Your task to perform on an android device: add a contact Image 0: 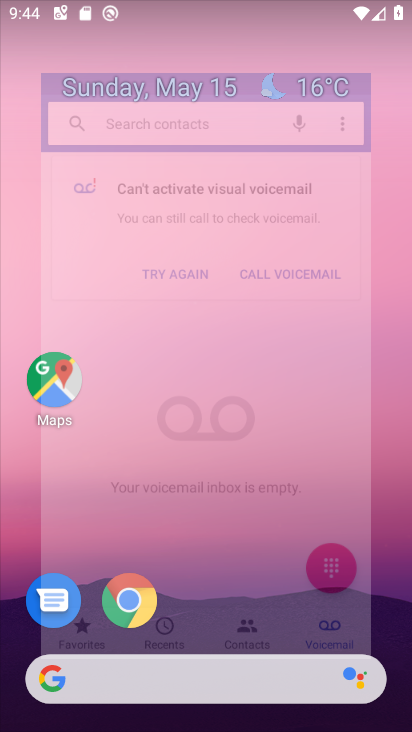
Step 0: click (138, 614)
Your task to perform on an android device: add a contact Image 1: 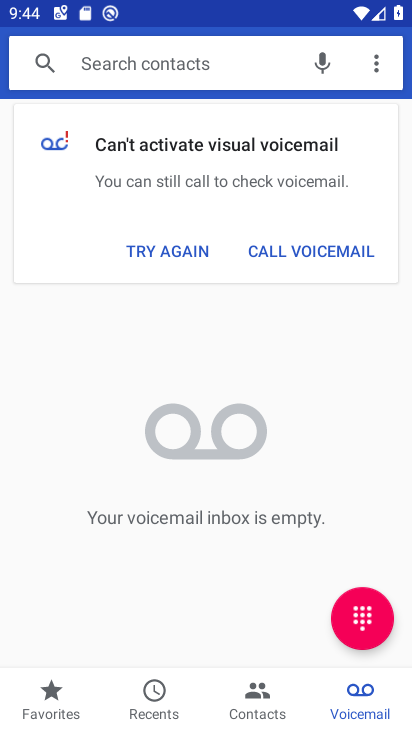
Step 1: press back button
Your task to perform on an android device: add a contact Image 2: 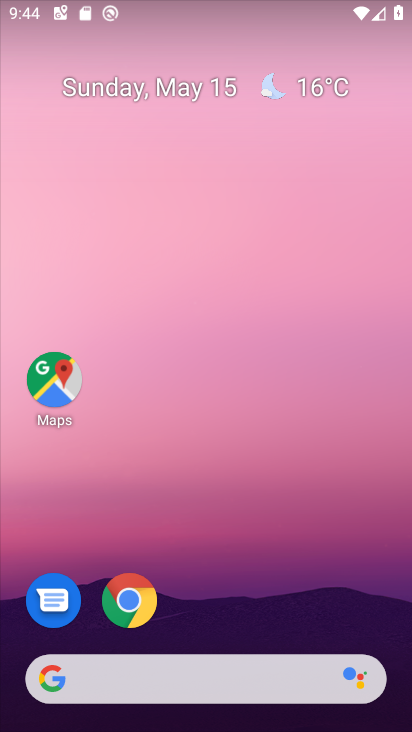
Step 2: drag from (215, 651) to (124, 40)
Your task to perform on an android device: add a contact Image 3: 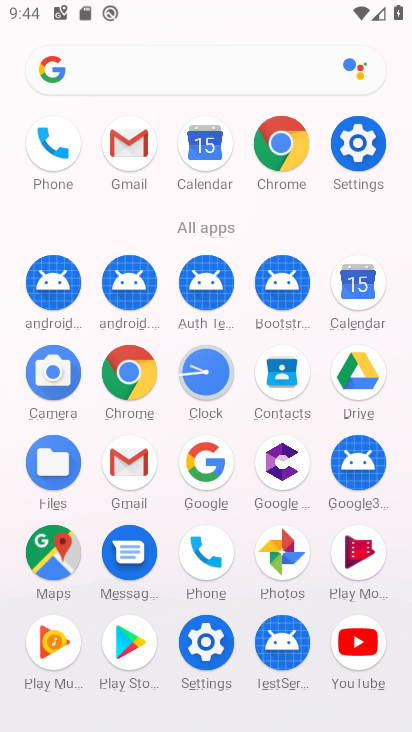
Step 3: click (211, 557)
Your task to perform on an android device: add a contact Image 4: 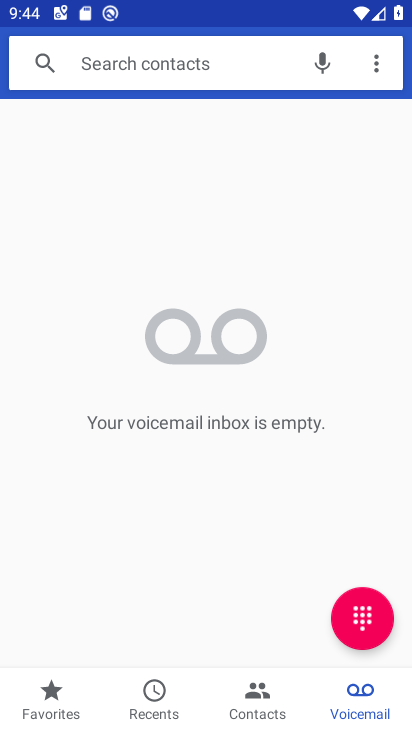
Step 4: click (232, 700)
Your task to perform on an android device: add a contact Image 5: 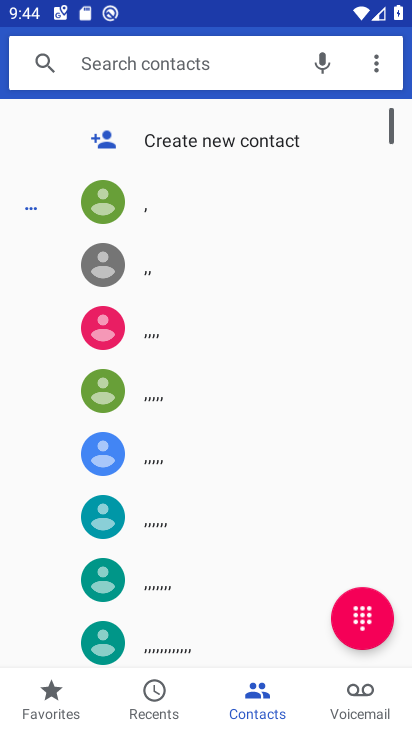
Step 5: click (145, 139)
Your task to perform on an android device: add a contact Image 6: 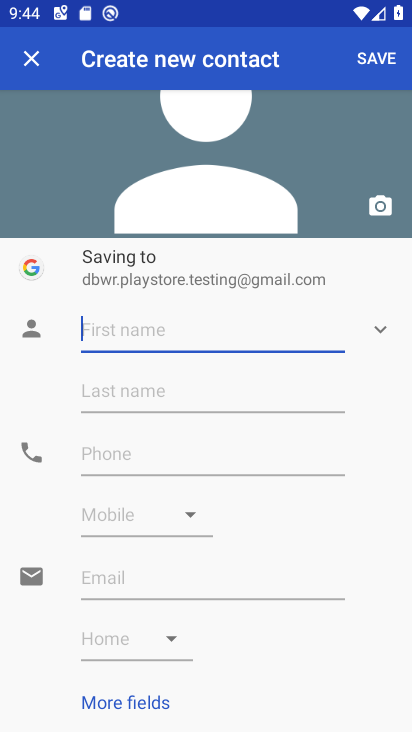
Step 6: type "jio"
Your task to perform on an android device: add a contact Image 7: 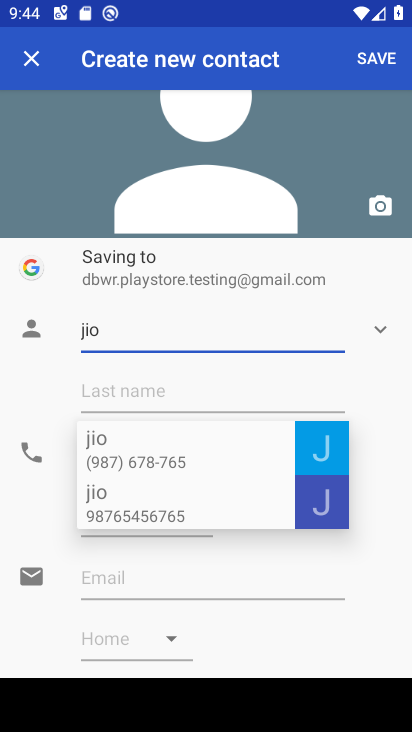
Step 7: click (166, 460)
Your task to perform on an android device: add a contact Image 8: 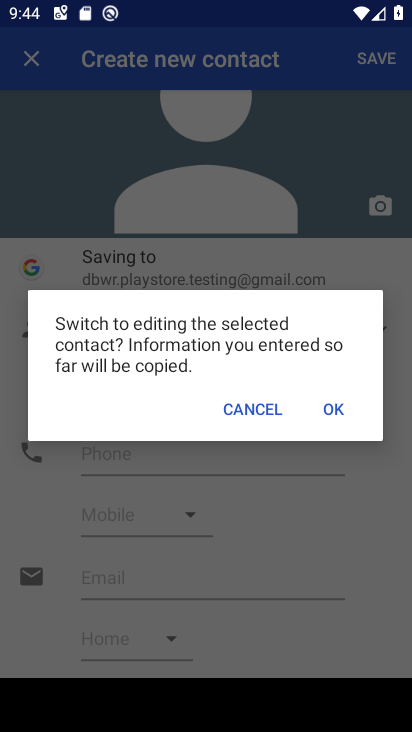
Step 8: click (195, 496)
Your task to perform on an android device: add a contact Image 9: 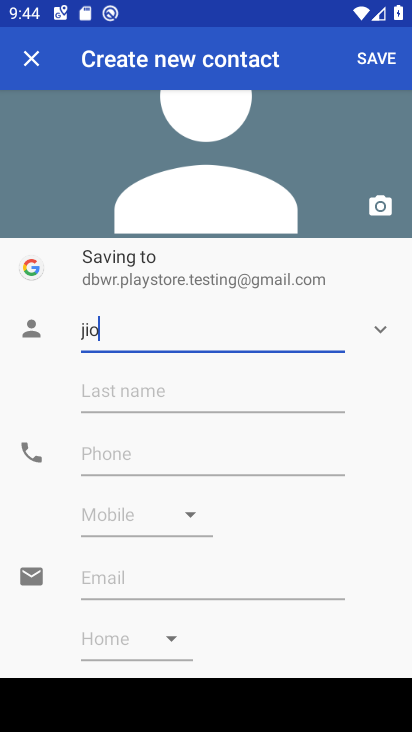
Step 9: click (342, 422)
Your task to perform on an android device: add a contact Image 10: 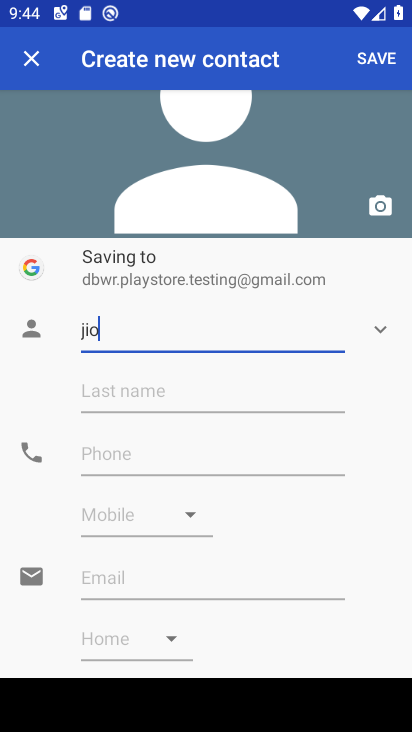
Step 10: click (189, 465)
Your task to perform on an android device: add a contact Image 11: 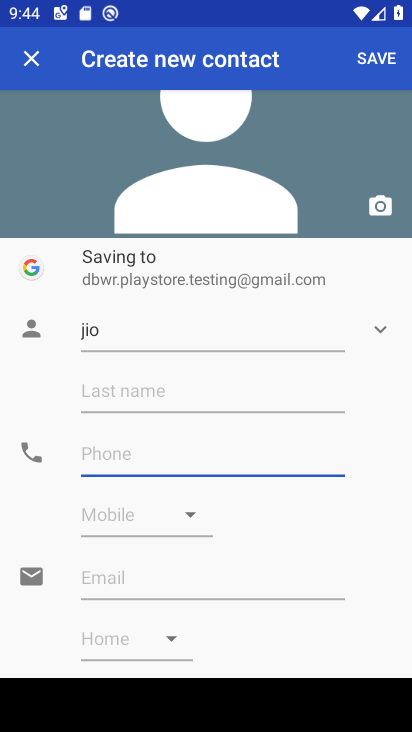
Step 11: type "65456789"
Your task to perform on an android device: add a contact Image 12: 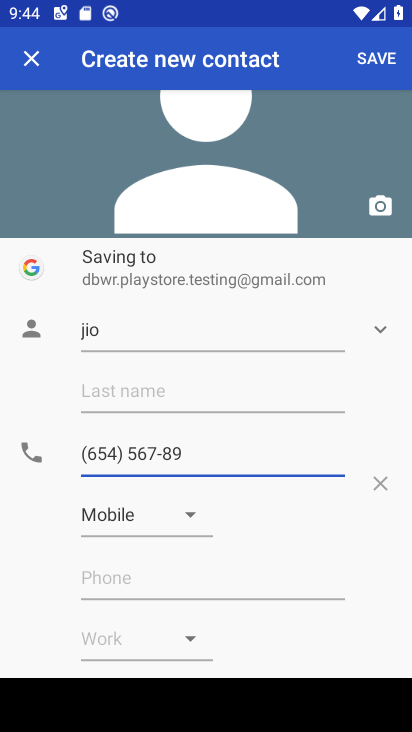
Step 12: type ""
Your task to perform on an android device: add a contact Image 13: 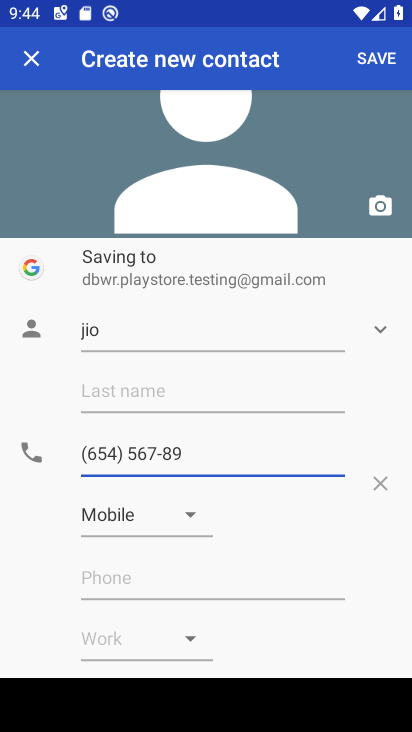
Step 13: click (366, 38)
Your task to perform on an android device: add a contact Image 14: 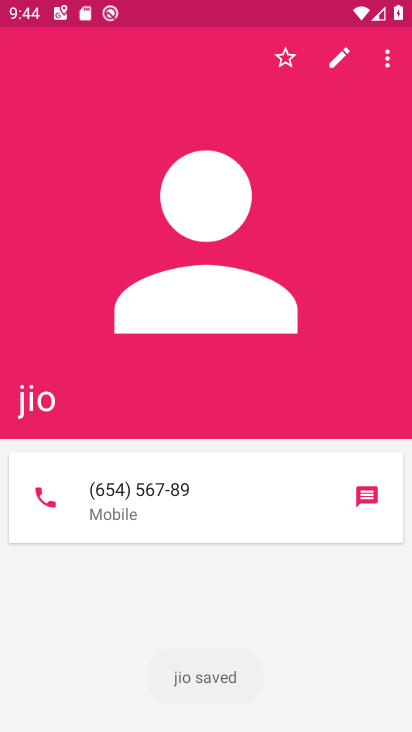
Step 14: task complete